Your task to perform on an android device: empty trash in the gmail app Image 0: 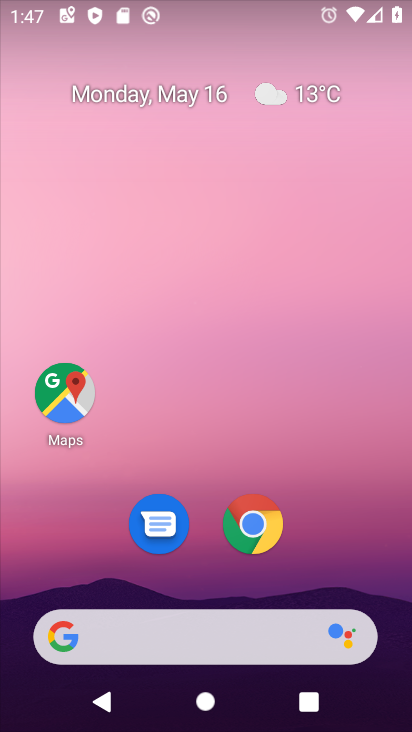
Step 0: drag from (308, 478) to (312, 53)
Your task to perform on an android device: empty trash in the gmail app Image 1: 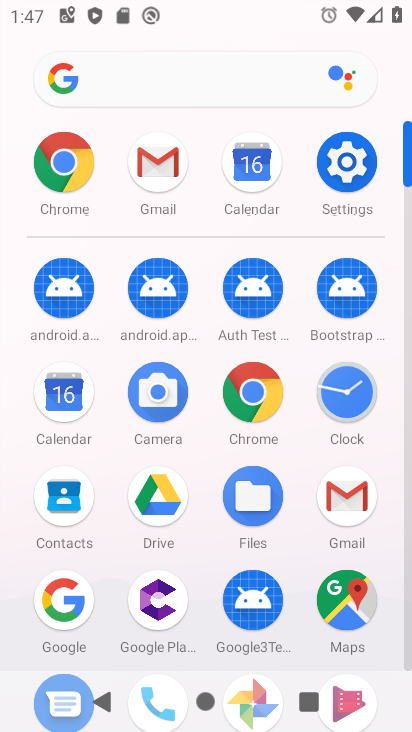
Step 1: click (166, 160)
Your task to perform on an android device: empty trash in the gmail app Image 2: 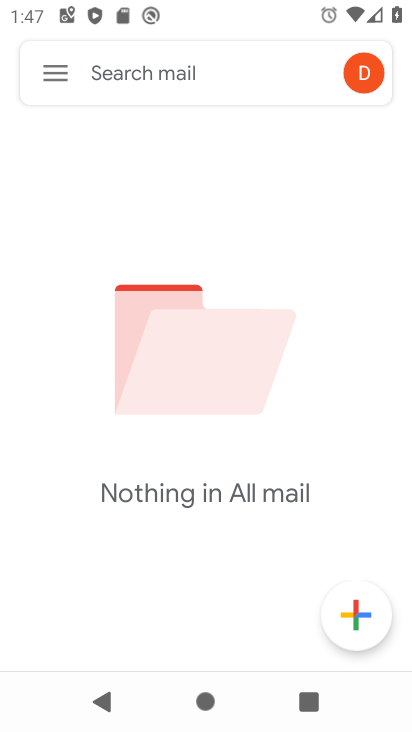
Step 2: click (57, 69)
Your task to perform on an android device: empty trash in the gmail app Image 3: 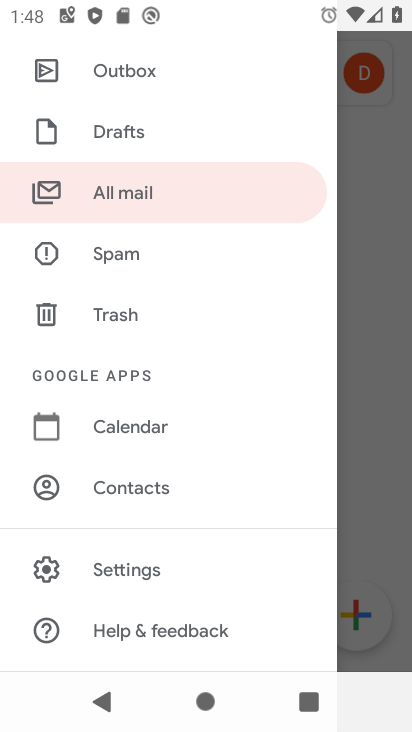
Step 3: click (115, 316)
Your task to perform on an android device: empty trash in the gmail app Image 4: 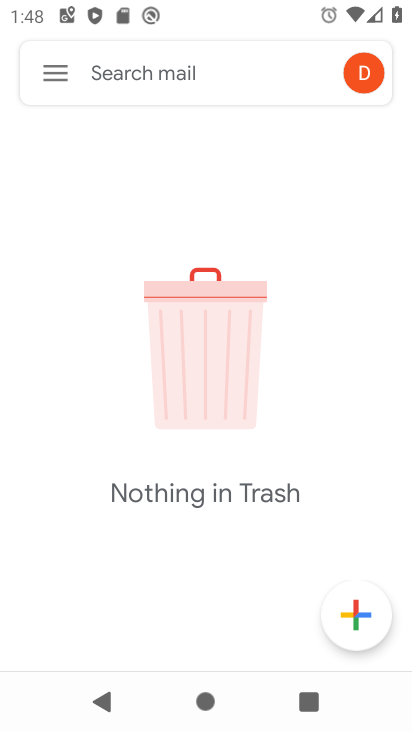
Step 4: task complete